Your task to perform on an android device: change the clock style Image 0: 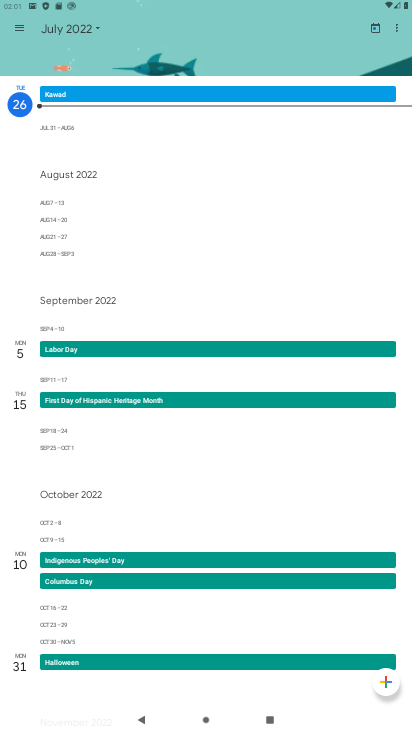
Step 0: press home button
Your task to perform on an android device: change the clock style Image 1: 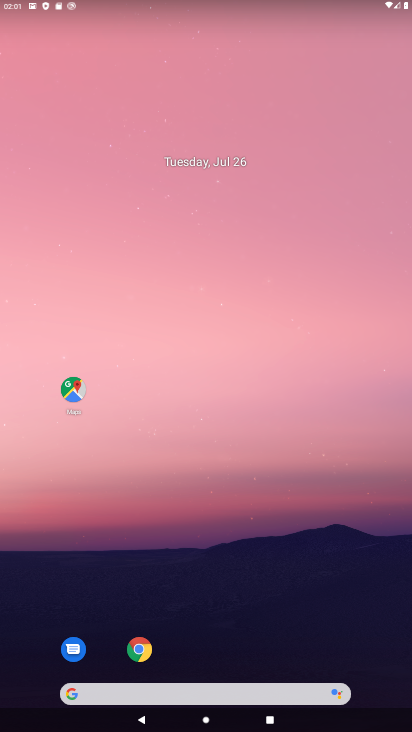
Step 1: drag from (186, 692) to (215, 304)
Your task to perform on an android device: change the clock style Image 2: 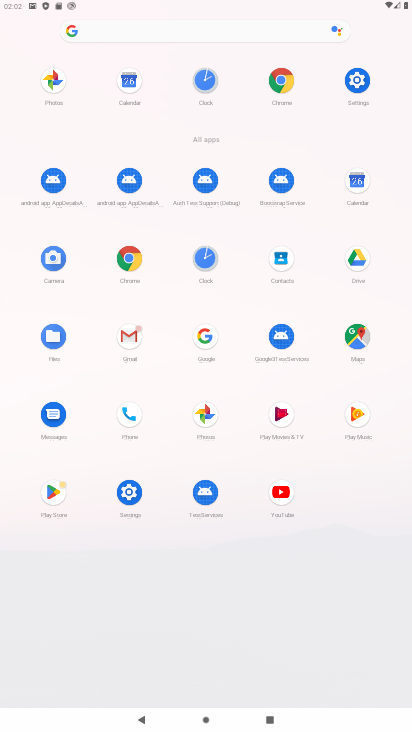
Step 2: click (205, 80)
Your task to perform on an android device: change the clock style Image 3: 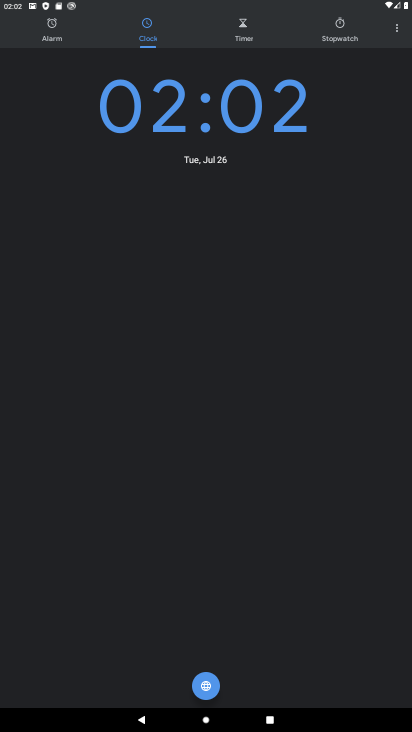
Step 3: click (396, 32)
Your task to perform on an android device: change the clock style Image 4: 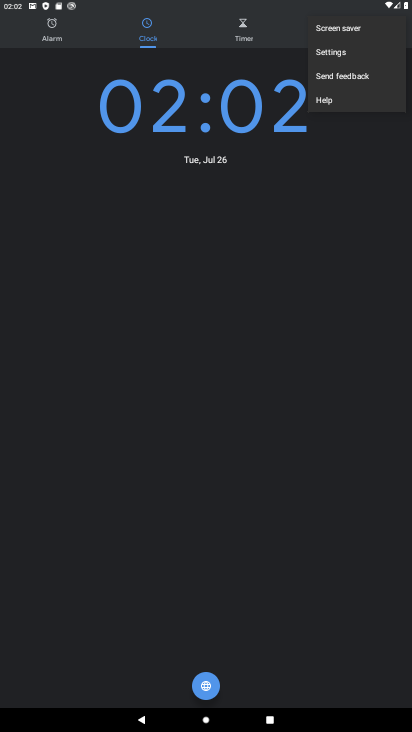
Step 4: click (337, 55)
Your task to perform on an android device: change the clock style Image 5: 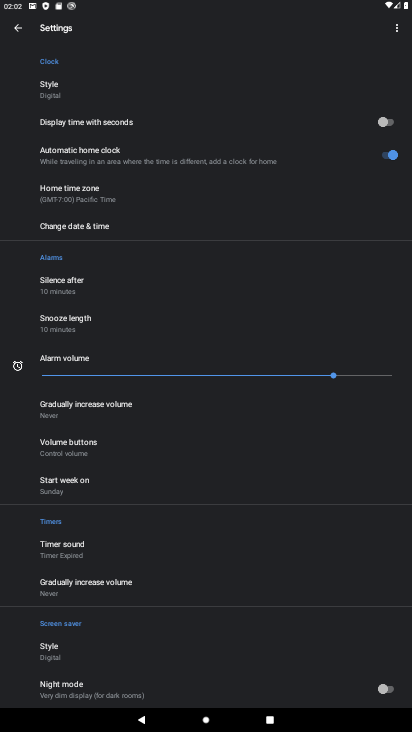
Step 5: click (60, 94)
Your task to perform on an android device: change the clock style Image 6: 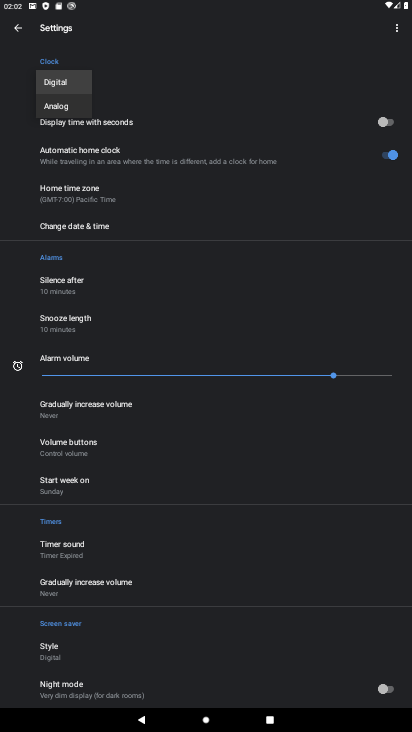
Step 6: click (71, 108)
Your task to perform on an android device: change the clock style Image 7: 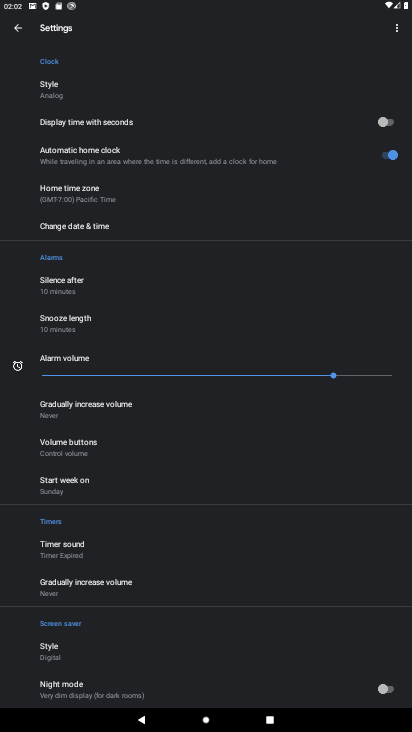
Step 7: task complete